Your task to perform on an android device: Open calendar and show me the third week of next month Image 0: 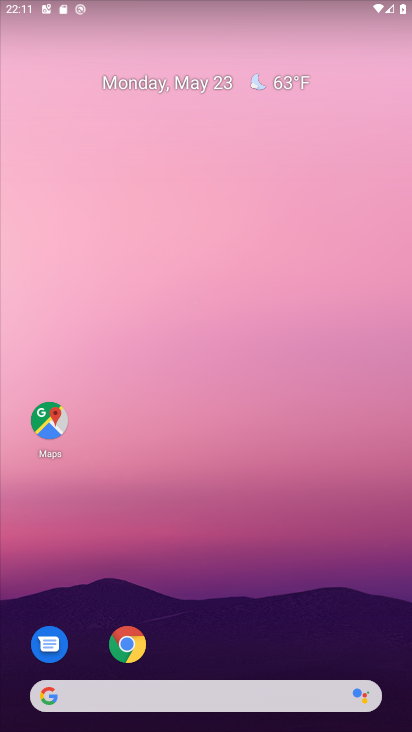
Step 0: drag from (215, 643) to (188, 56)
Your task to perform on an android device: Open calendar and show me the third week of next month Image 1: 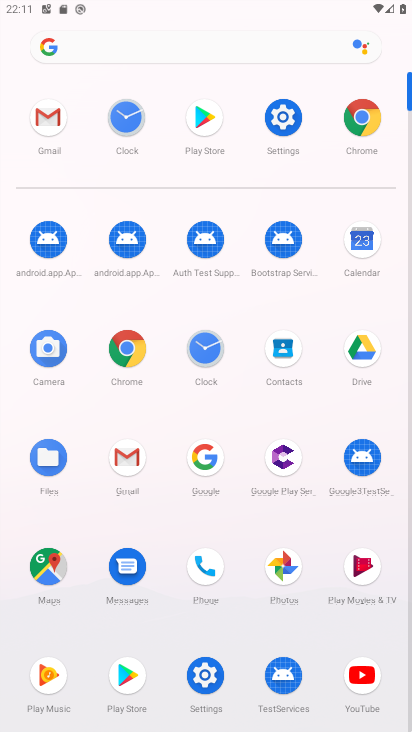
Step 1: click (361, 239)
Your task to perform on an android device: Open calendar and show me the third week of next month Image 2: 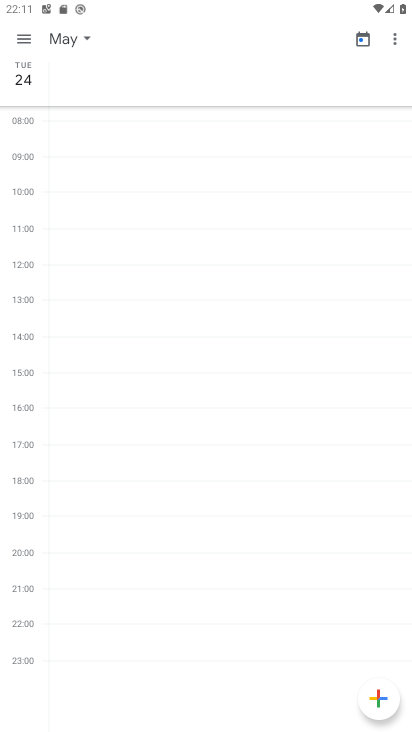
Step 2: click (85, 38)
Your task to perform on an android device: Open calendar and show me the third week of next month Image 3: 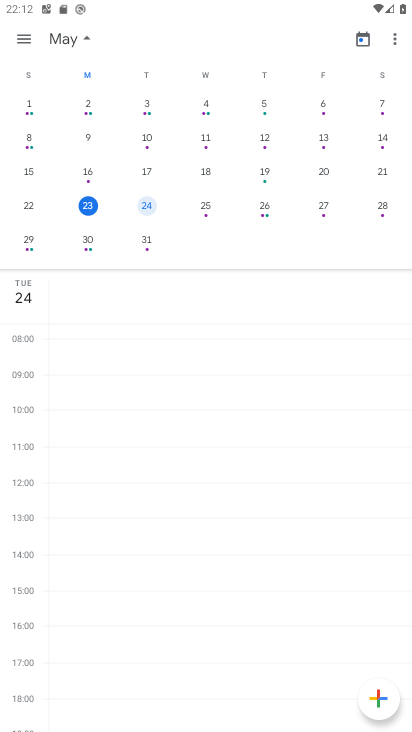
Step 3: click (85, 31)
Your task to perform on an android device: Open calendar and show me the third week of next month Image 4: 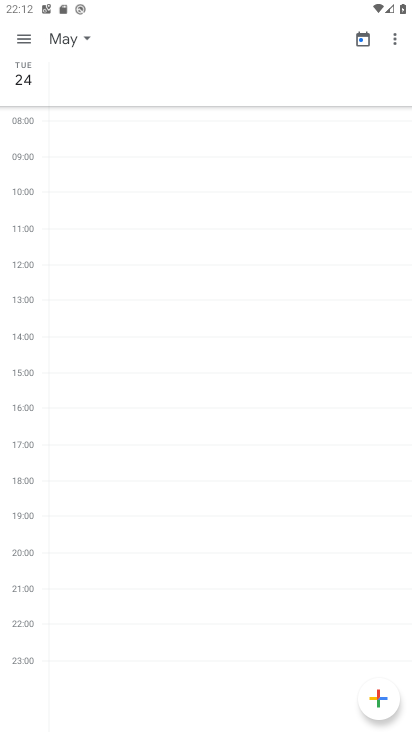
Step 4: click (87, 31)
Your task to perform on an android device: Open calendar and show me the third week of next month Image 5: 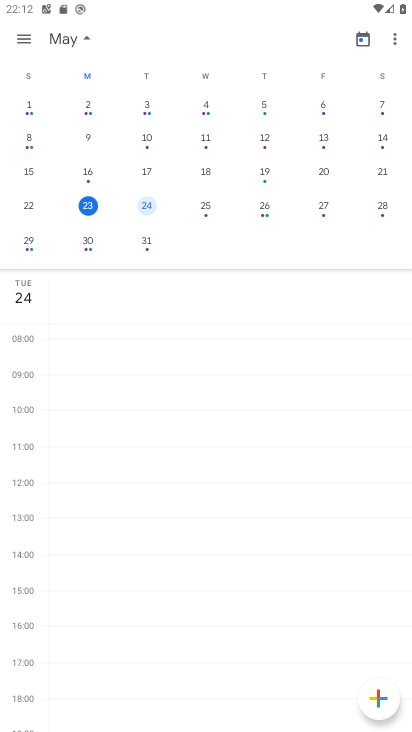
Step 5: drag from (379, 166) to (30, 180)
Your task to perform on an android device: Open calendar and show me the third week of next month Image 6: 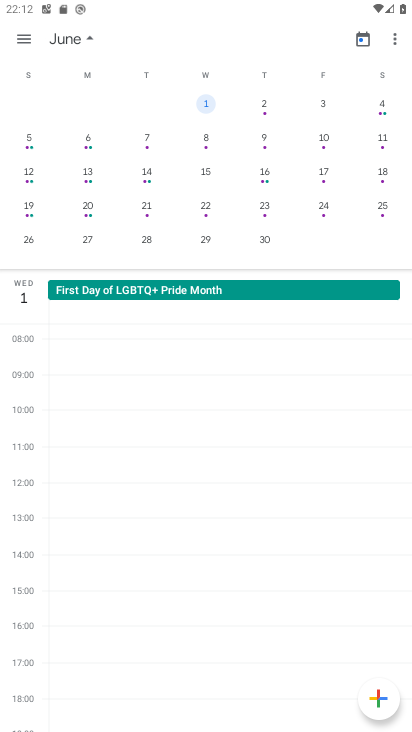
Step 6: click (23, 175)
Your task to perform on an android device: Open calendar and show me the third week of next month Image 7: 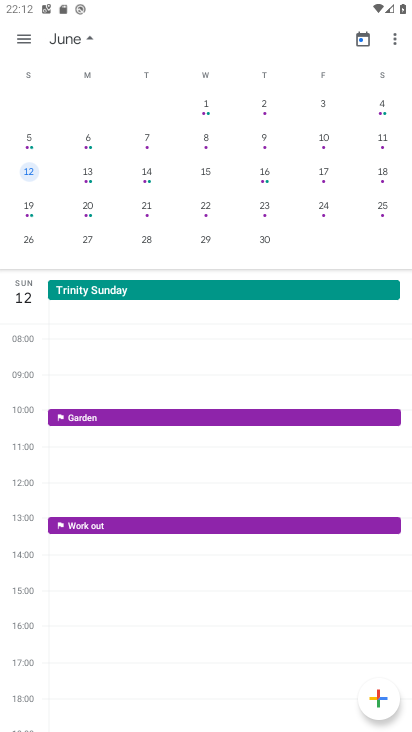
Step 7: click (82, 39)
Your task to perform on an android device: Open calendar and show me the third week of next month Image 8: 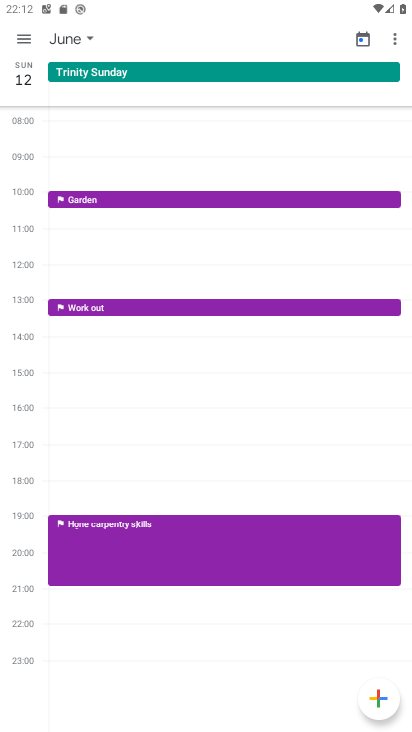
Step 8: click (34, 80)
Your task to perform on an android device: Open calendar and show me the third week of next month Image 9: 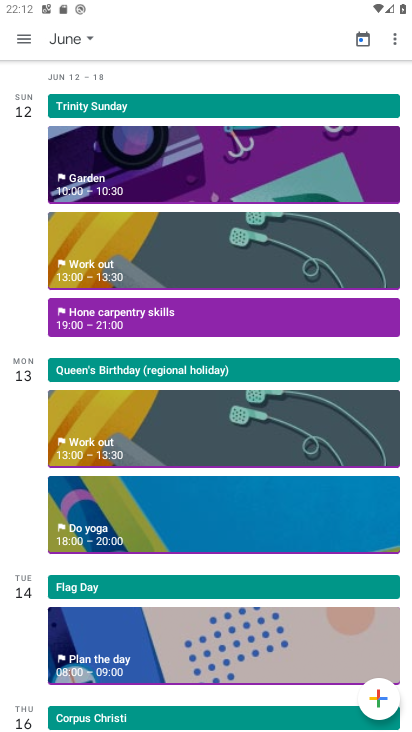
Step 9: task complete